Your task to perform on an android device: Turn on the flashlight Image 0: 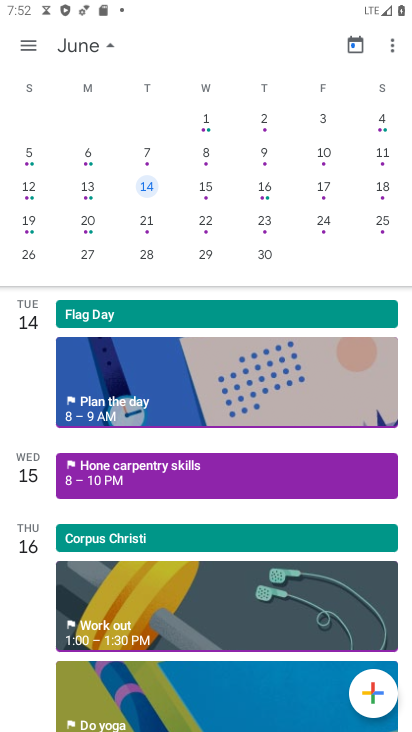
Step 0: press home button
Your task to perform on an android device: Turn on the flashlight Image 1: 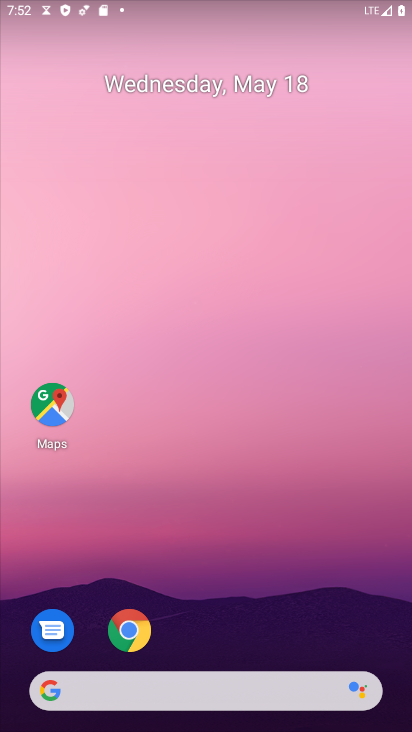
Step 1: drag from (298, 552) to (307, 43)
Your task to perform on an android device: Turn on the flashlight Image 2: 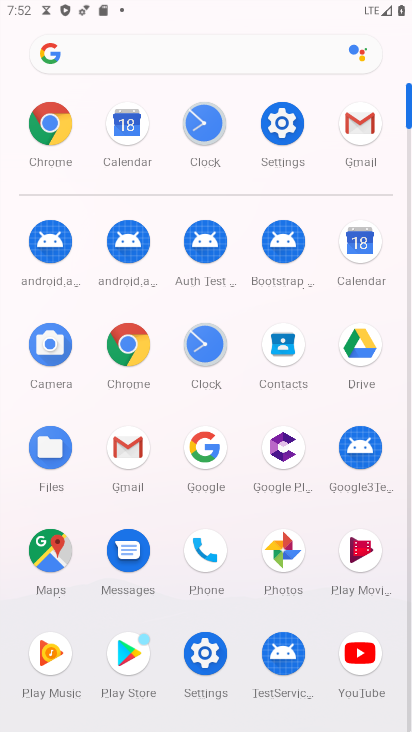
Step 2: click (282, 104)
Your task to perform on an android device: Turn on the flashlight Image 3: 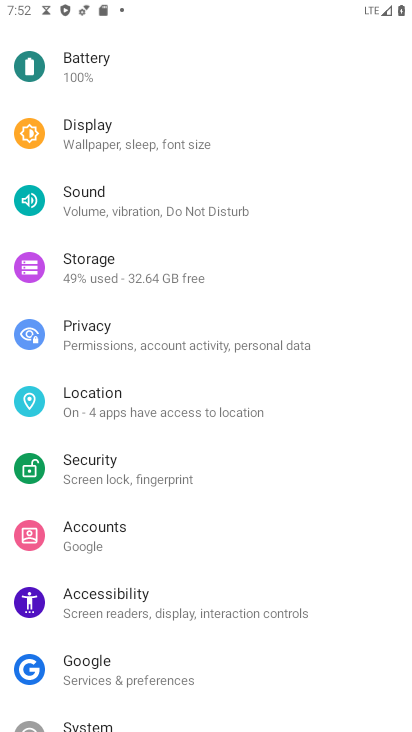
Step 3: task complete